Your task to perform on an android device: Go to eBay Image 0: 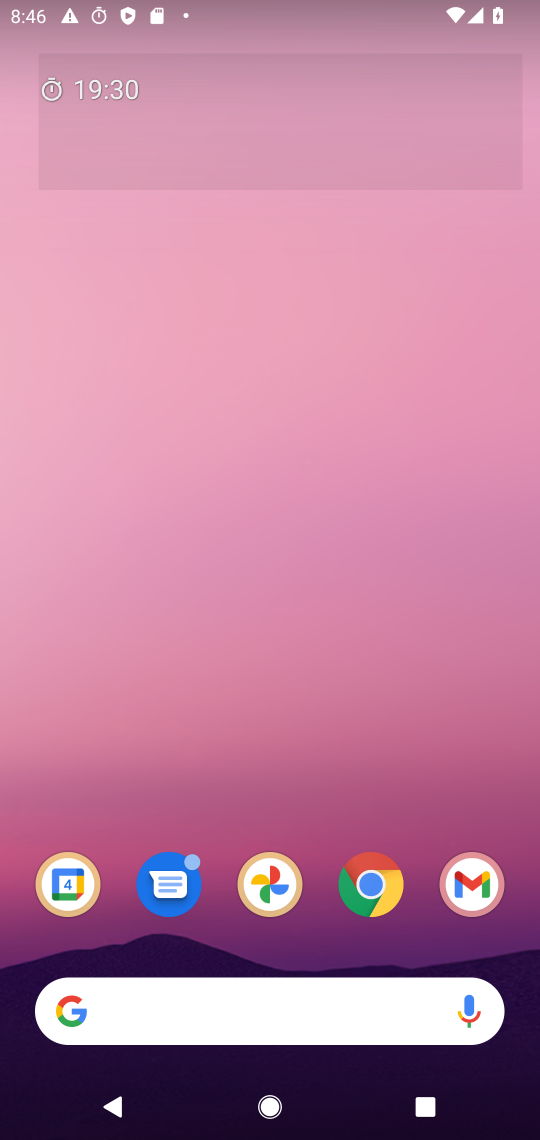
Step 0: press home button
Your task to perform on an android device: Go to eBay Image 1: 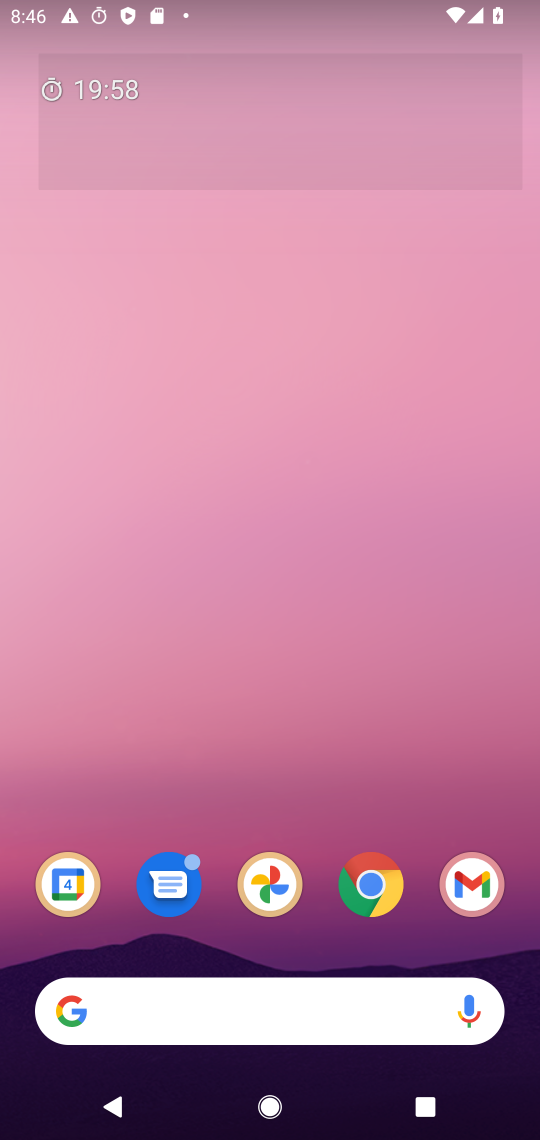
Step 1: click (80, 1041)
Your task to perform on an android device: Go to eBay Image 2: 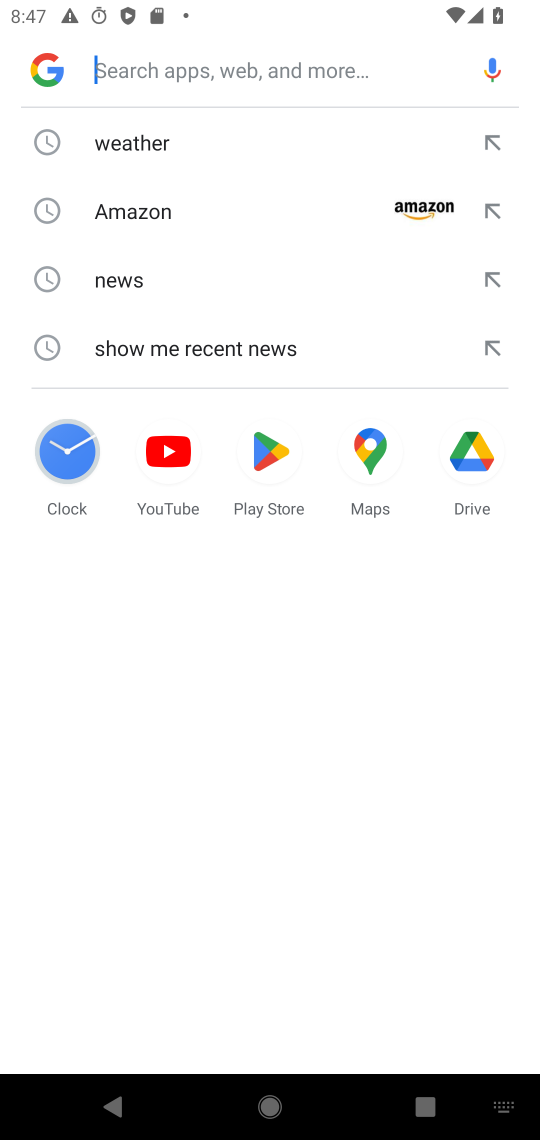
Step 2: type "eBay"
Your task to perform on an android device: Go to eBay Image 3: 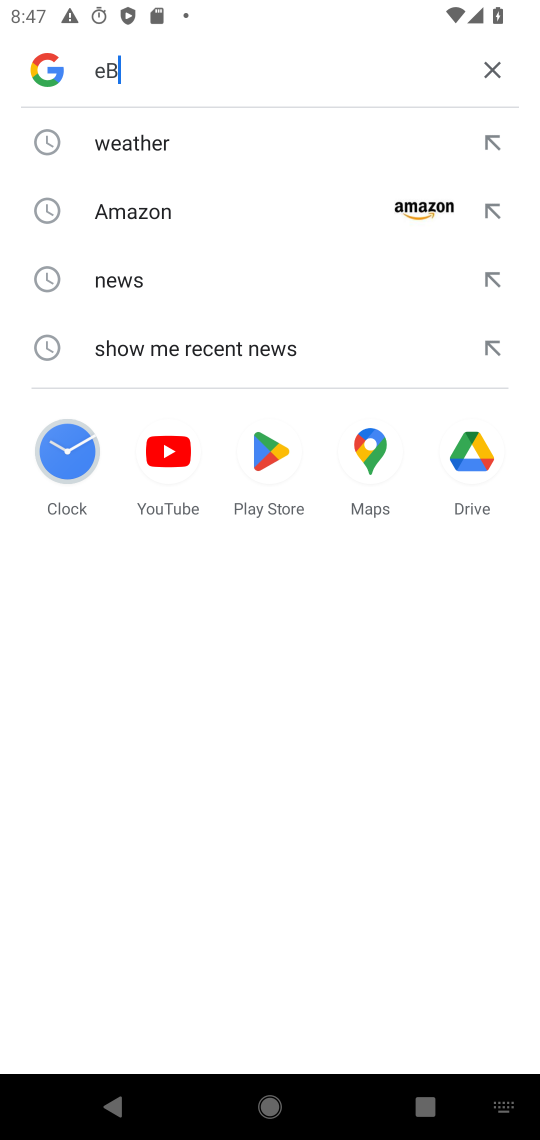
Step 3: press enter
Your task to perform on an android device: Go to eBay Image 4: 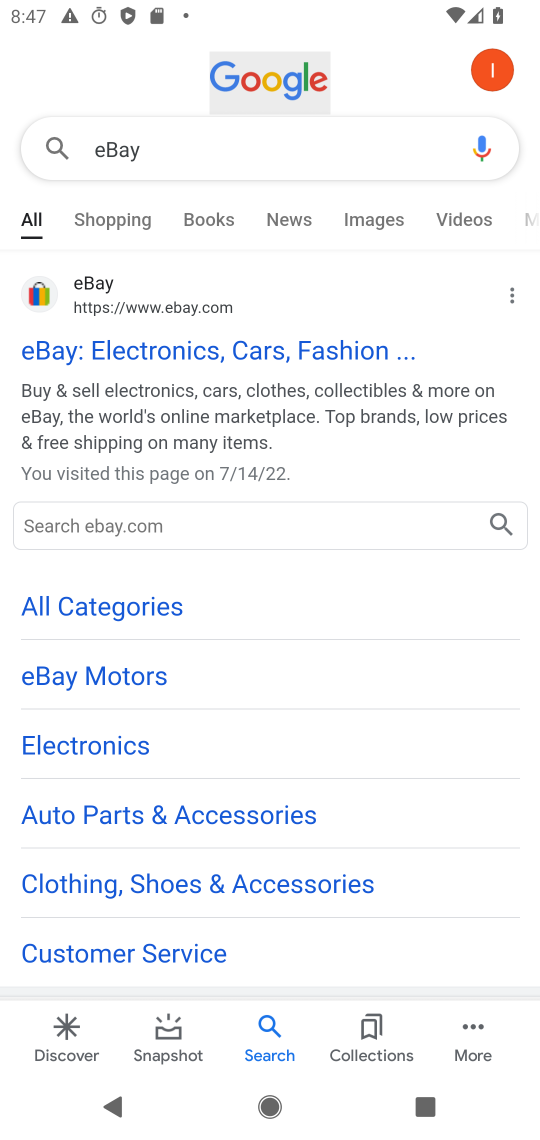
Step 4: click (144, 364)
Your task to perform on an android device: Go to eBay Image 5: 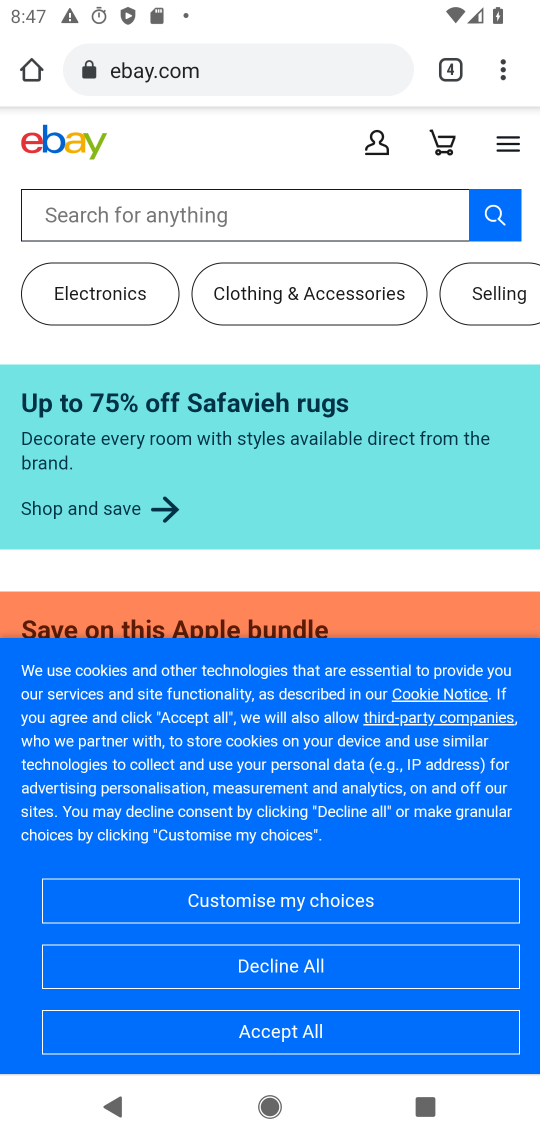
Step 5: task complete